Your task to perform on an android device: Look up the best rated Nike shoes on Nike.com Image 0: 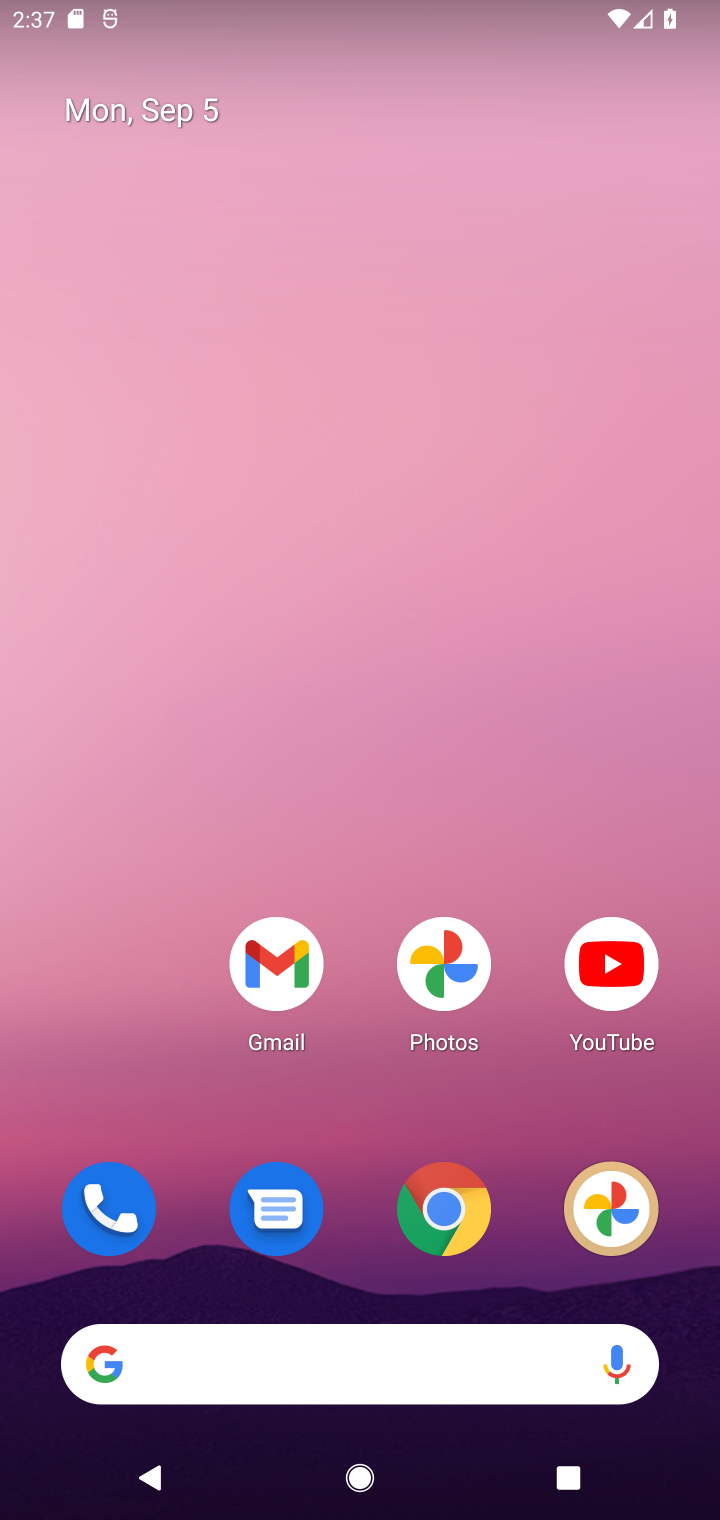
Step 0: drag from (382, 869) to (441, 324)
Your task to perform on an android device: Look up the best rated Nike shoes on Nike.com Image 1: 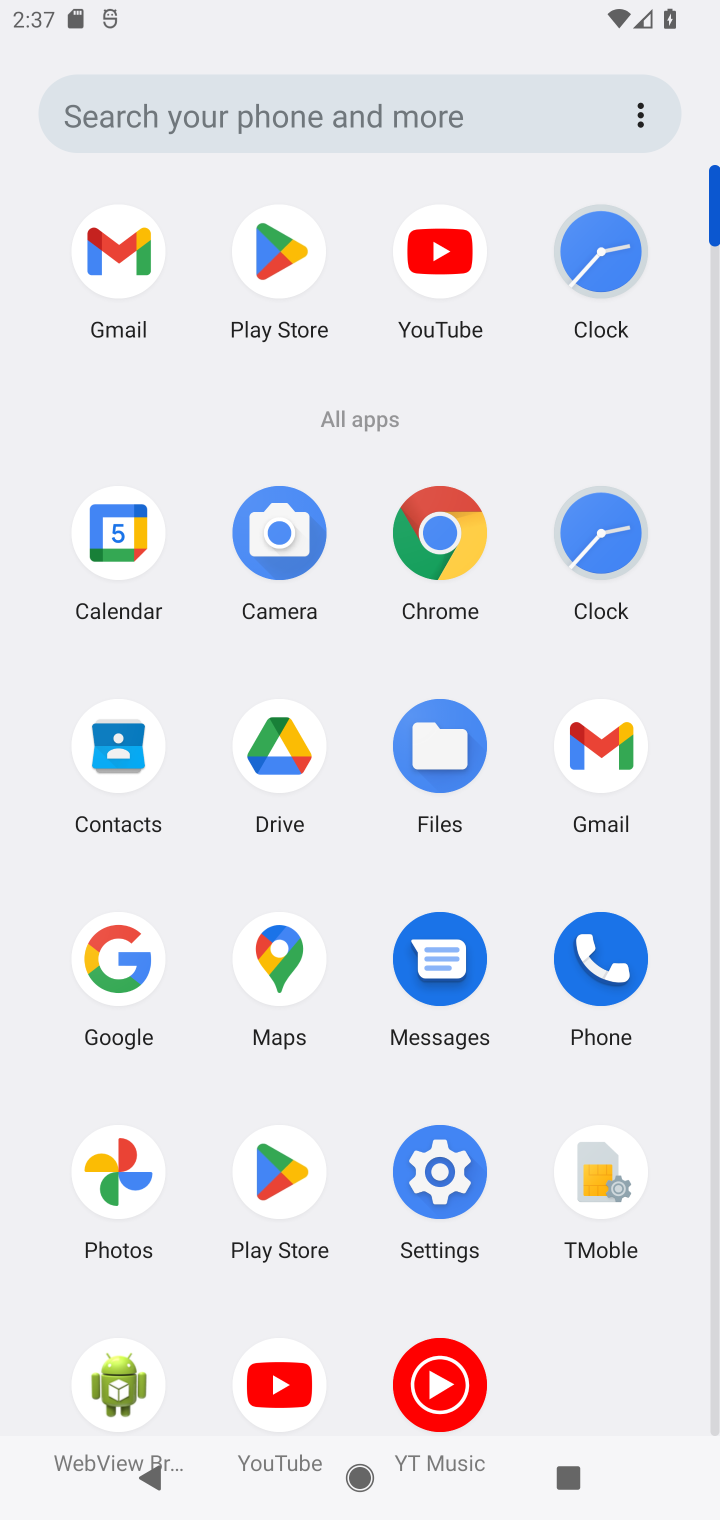
Step 1: click (129, 944)
Your task to perform on an android device: Look up the best rated Nike shoes on Nike.com Image 2: 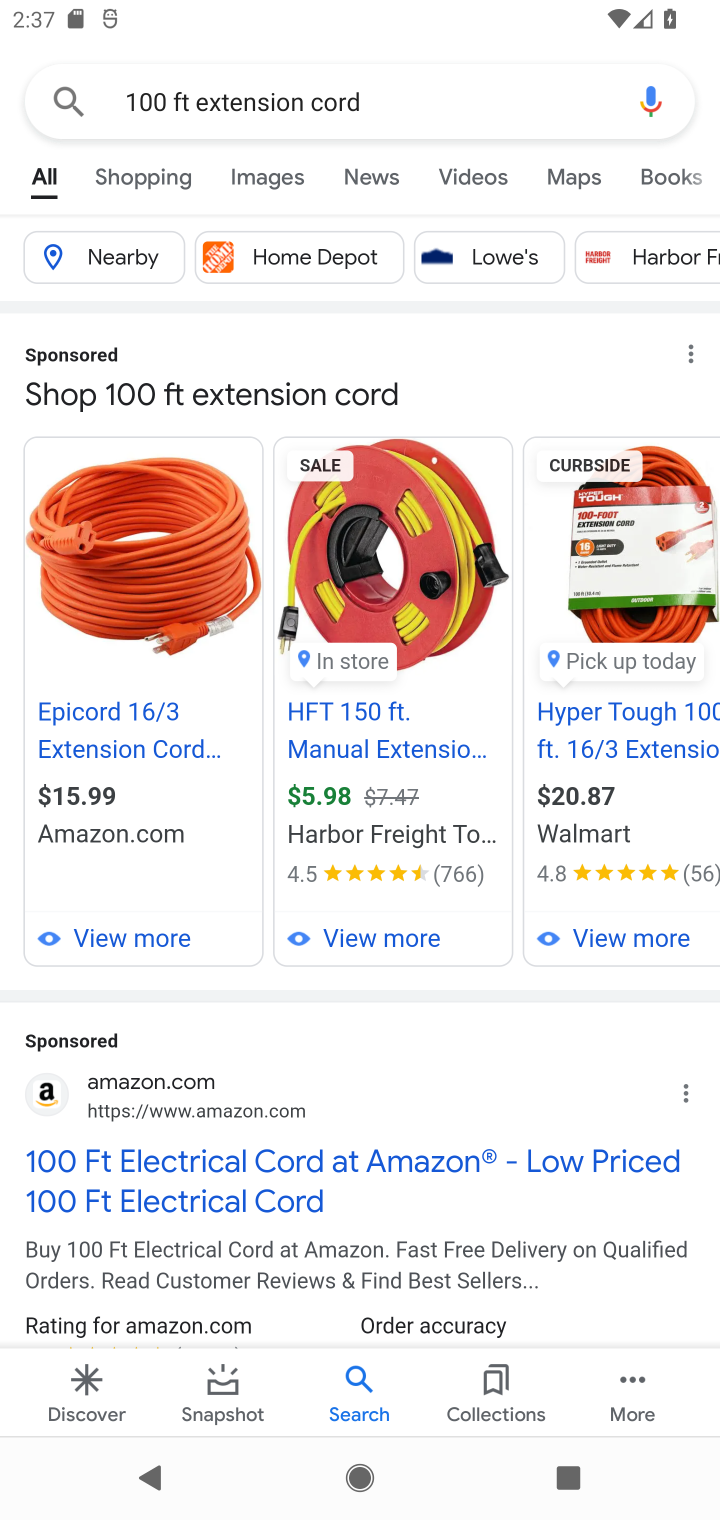
Step 2: click (362, 87)
Your task to perform on an android device: Look up the best rated Nike shoes on Nike.com Image 3: 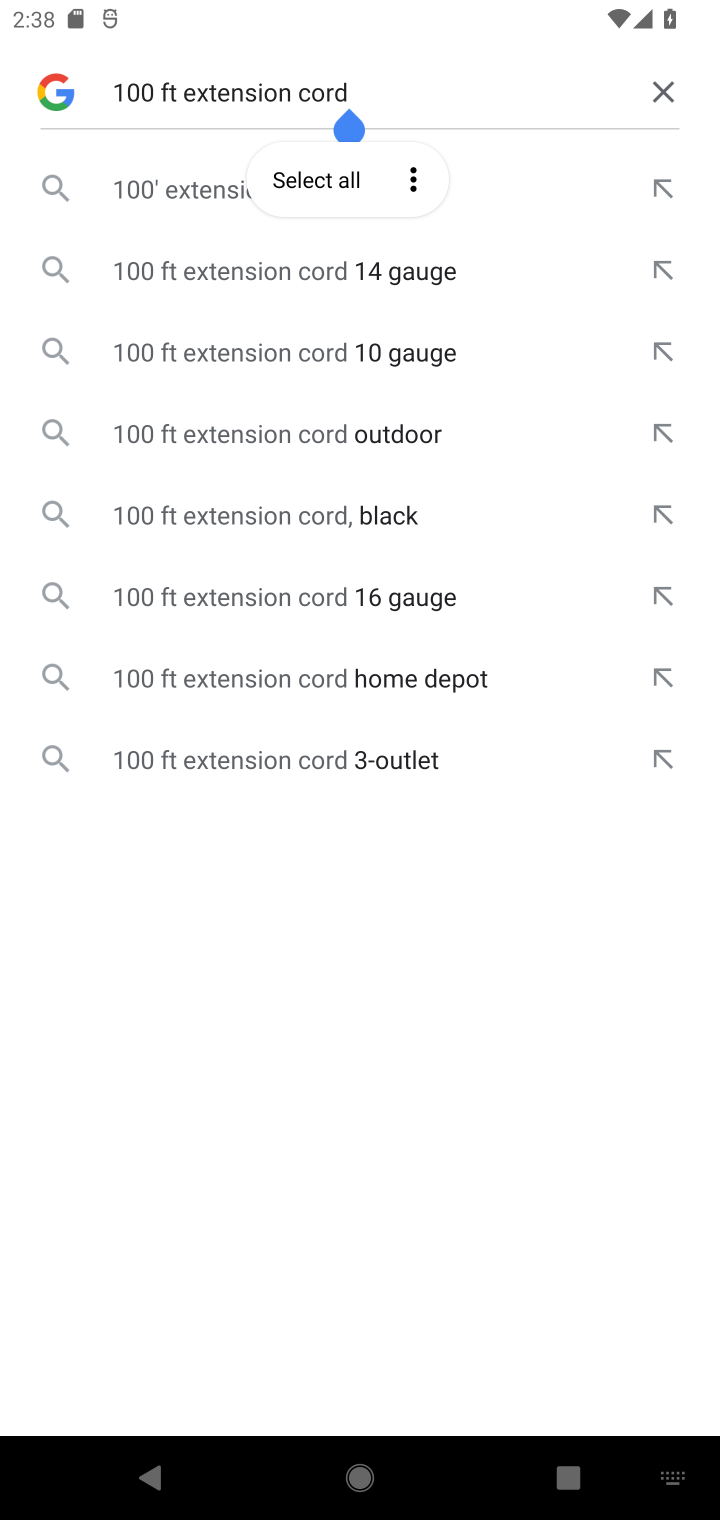
Step 3: click (658, 102)
Your task to perform on an android device: Look up the best rated Nike shoes on Nike.com Image 4: 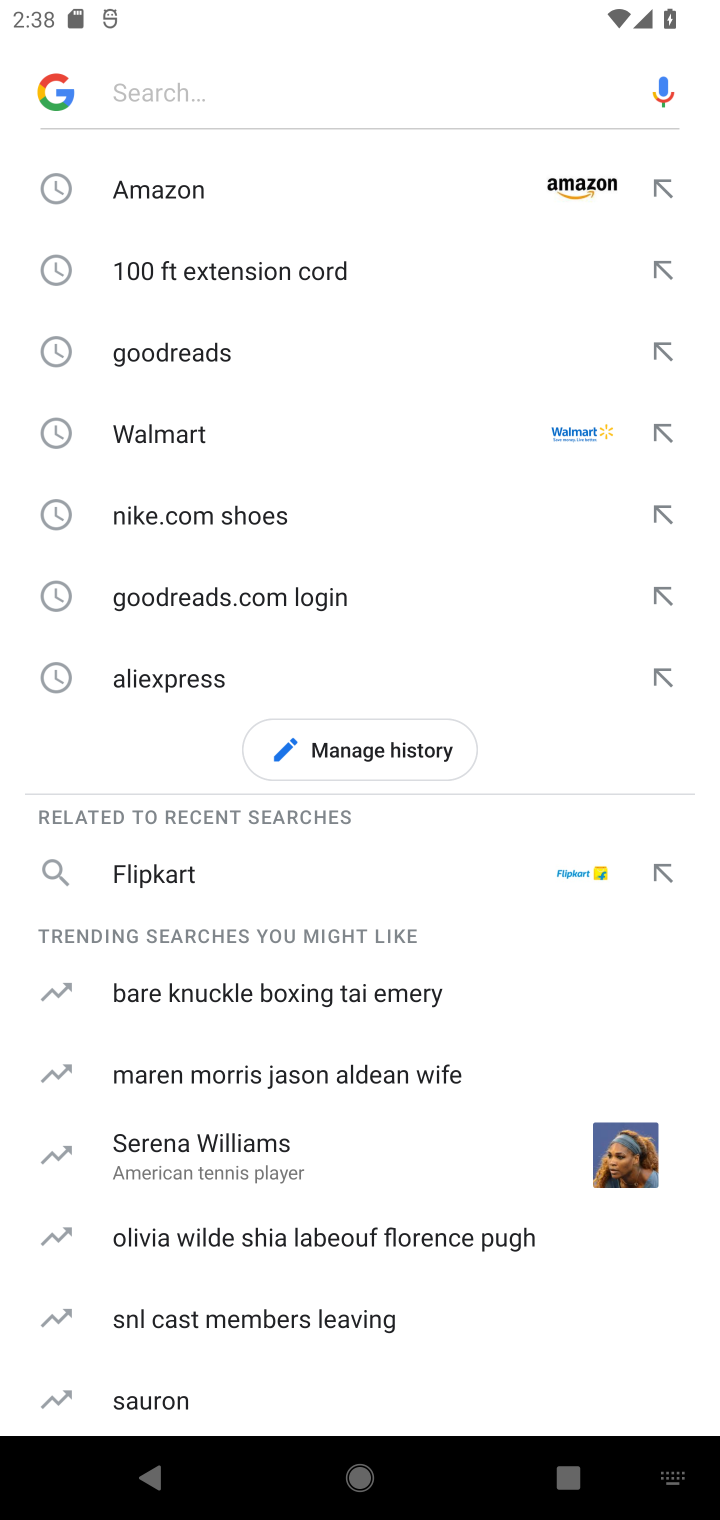
Step 4: type "Nike.com"
Your task to perform on an android device: Look up the best rated Nike shoes on Nike.com Image 5: 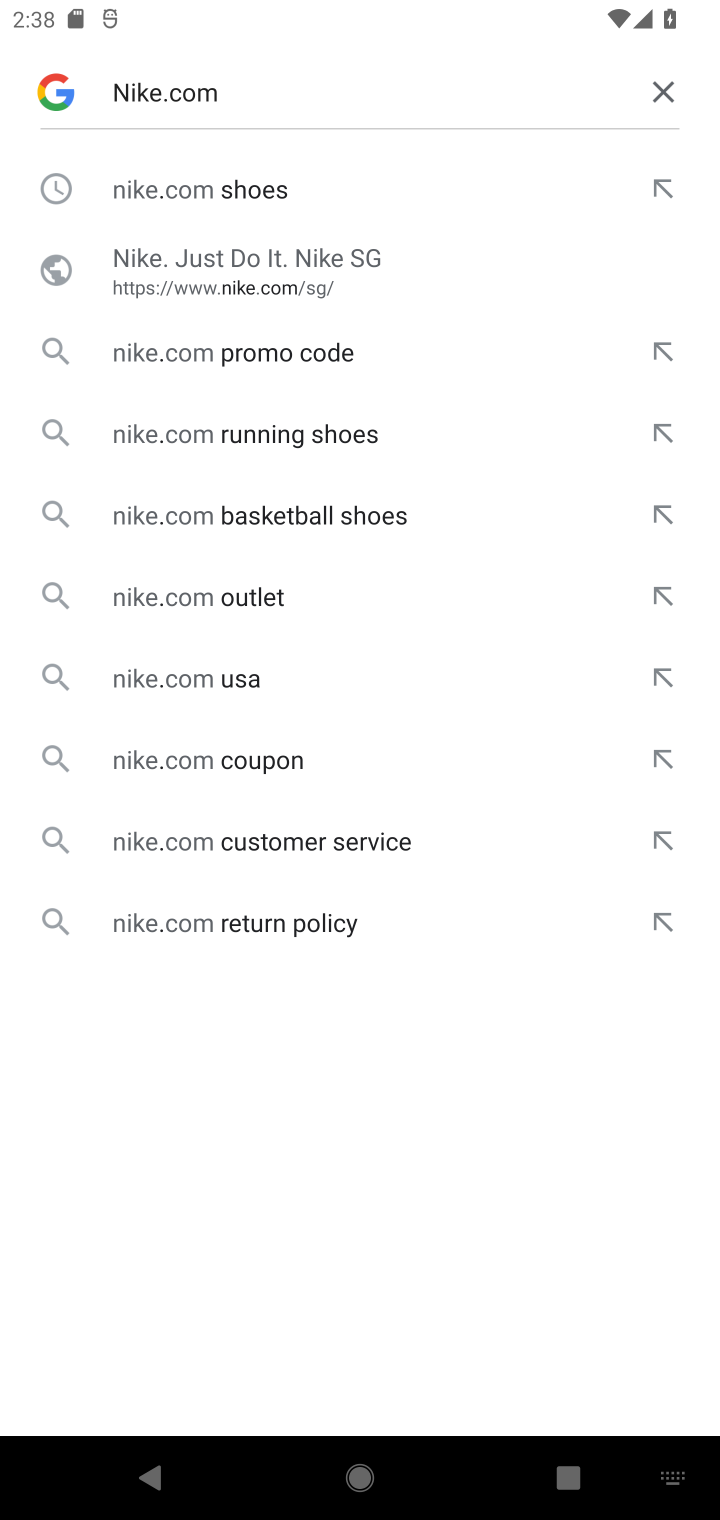
Step 5: click (207, 271)
Your task to perform on an android device: Look up the best rated Nike shoes on Nike.com Image 6: 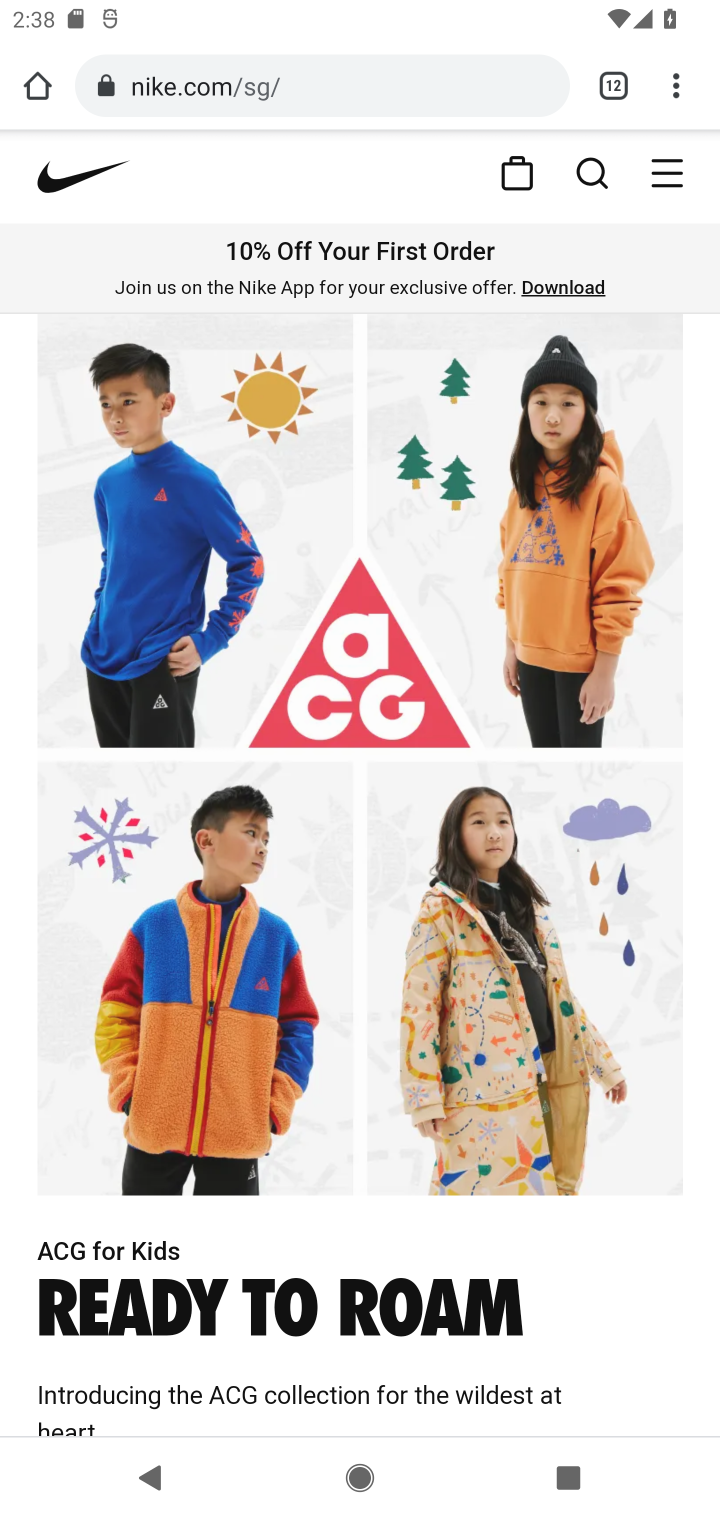
Step 6: click (589, 169)
Your task to perform on an android device: Look up the best rated Nike shoes on Nike.com Image 7: 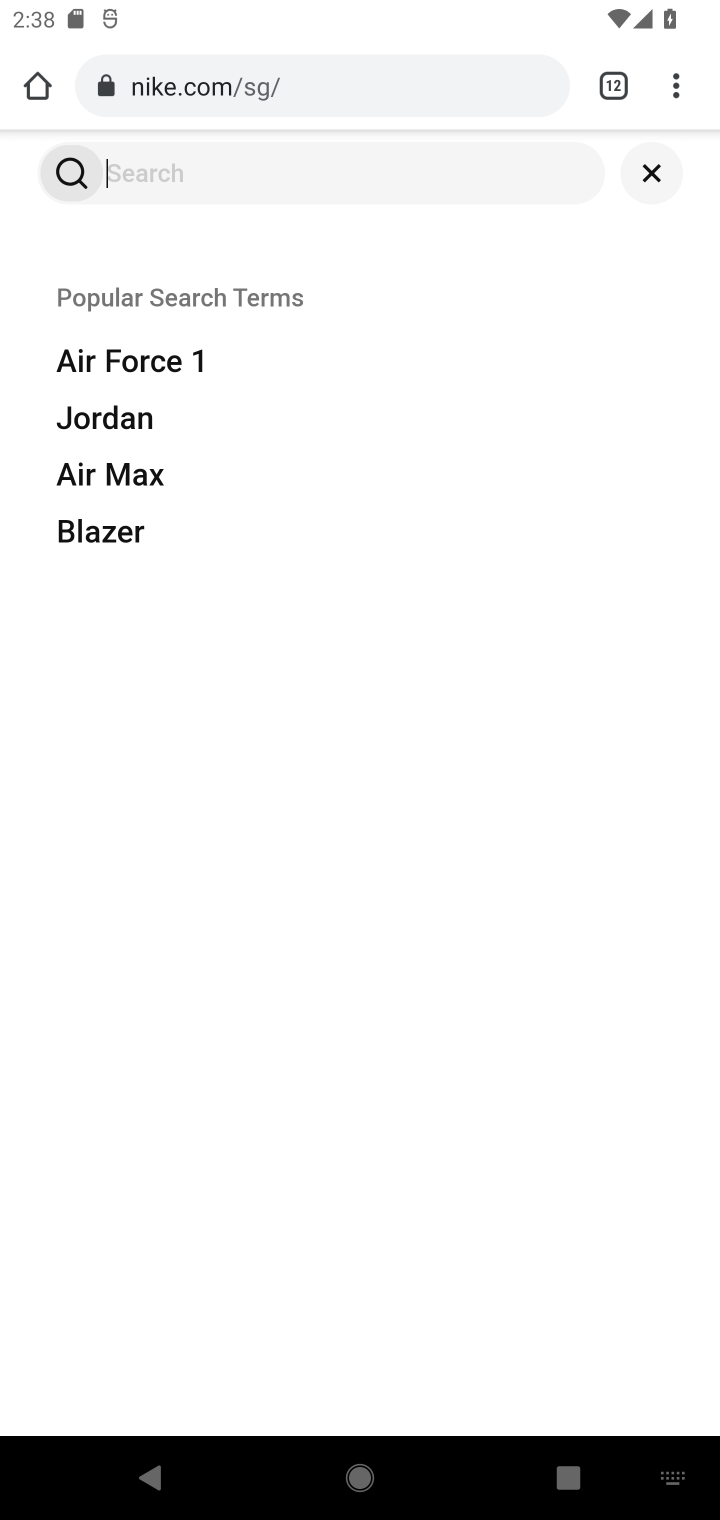
Step 7: type "best rated Nike shoes"
Your task to perform on an android device: Look up the best rated Nike shoes on Nike.com Image 8: 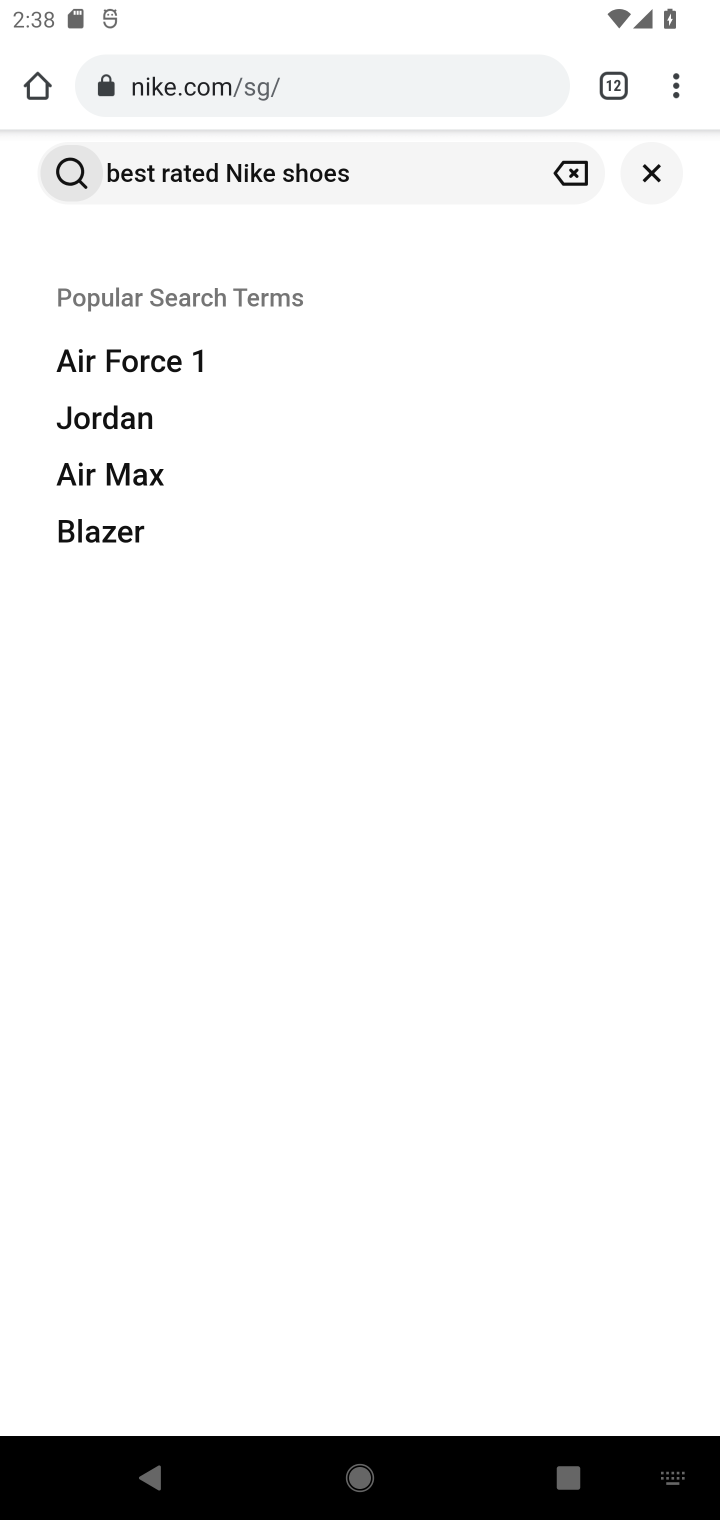
Step 8: click (57, 172)
Your task to perform on an android device: Look up the best rated Nike shoes on Nike.com Image 9: 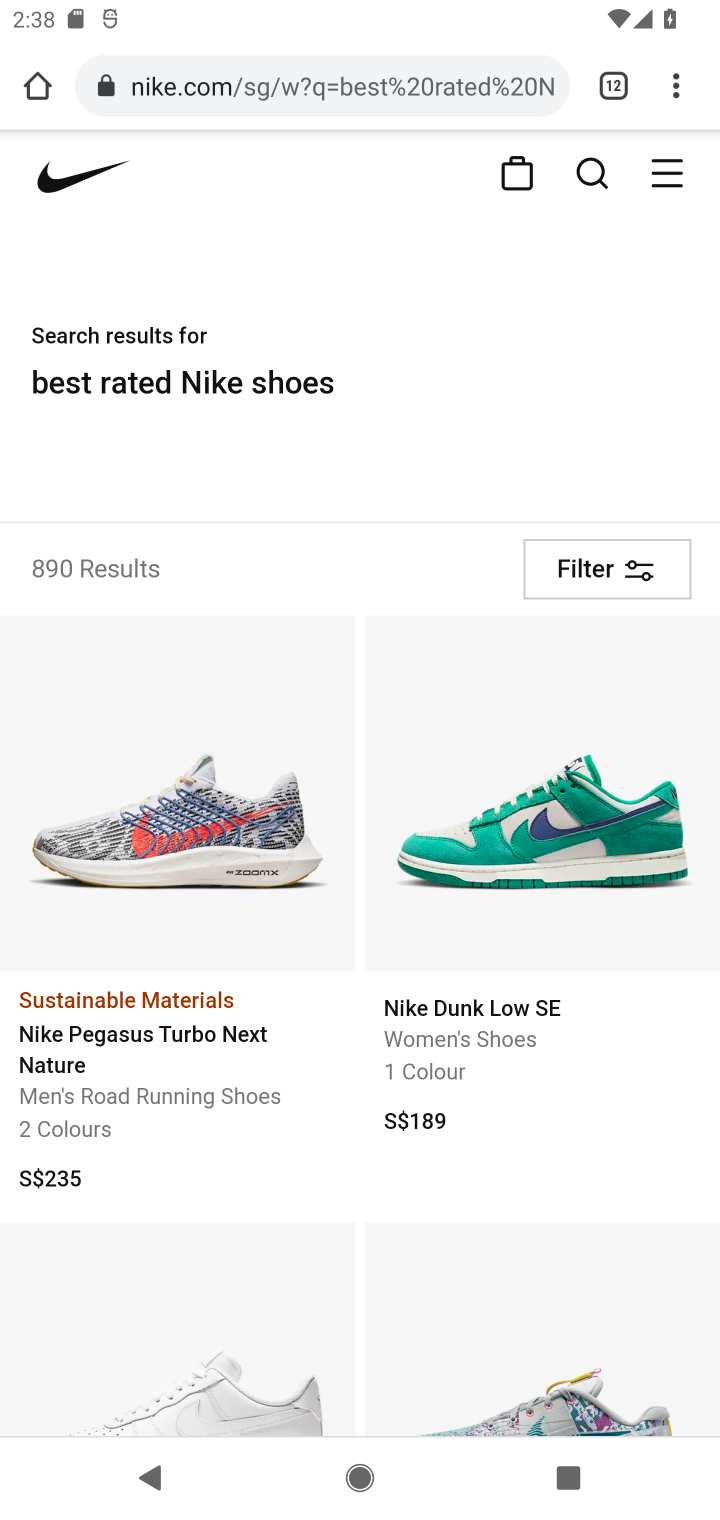
Step 9: drag from (340, 1327) to (426, 602)
Your task to perform on an android device: Look up the best rated Nike shoes on Nike.com Image 10: 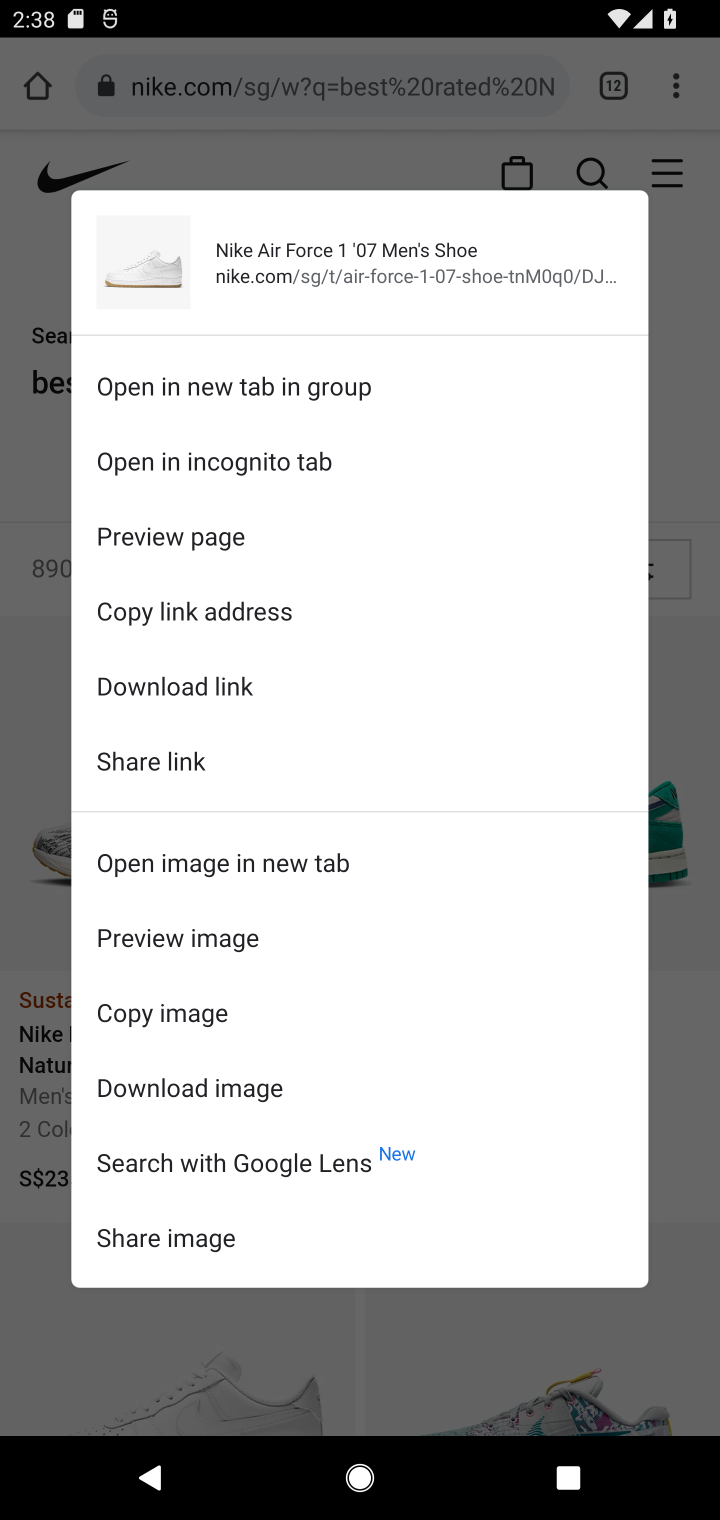
Step 10: click (674, 680)
Your task to perform on an android device: Look up the best rated Nike shoes on Nike.com Image 11: 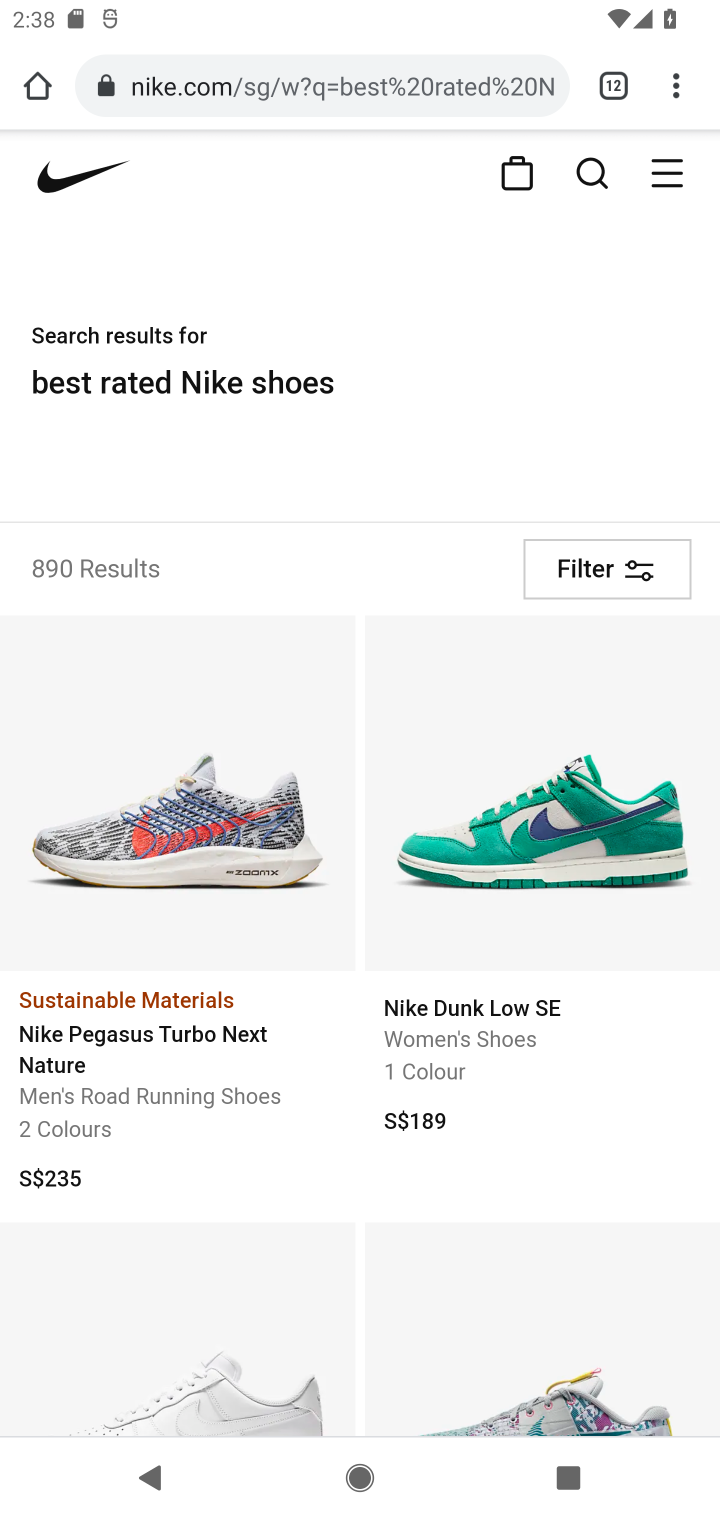
Step 11: task complete